Your task to perform on an android device: Open calendar and show me the fourth week of next month Image 0: 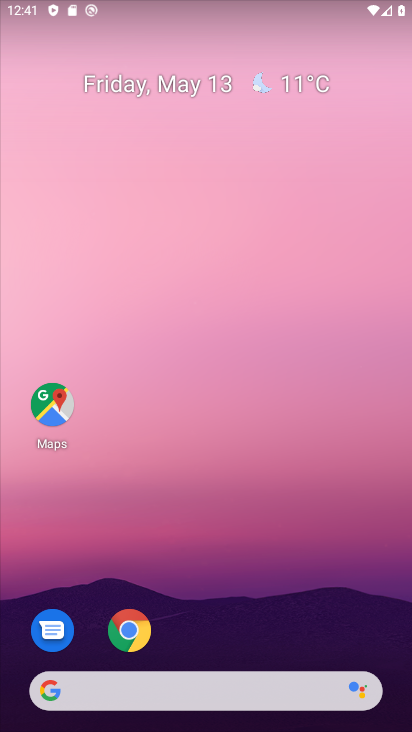
Step 0: drag from (289, 617) to (287, 363)
Your task to perform on an android device: Open calendar and show me the fourth week of next month Image 1: 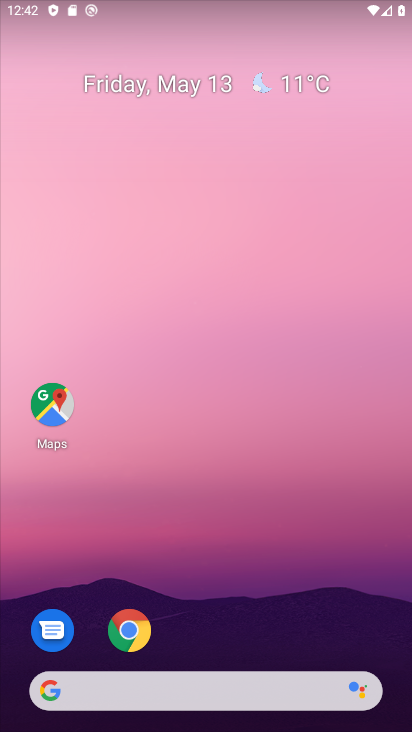
Step 1: drag from (265, 589) to (297, 231)
Your task to perform on an android device: Open calendar and show me the fourth week of next month Image 2: 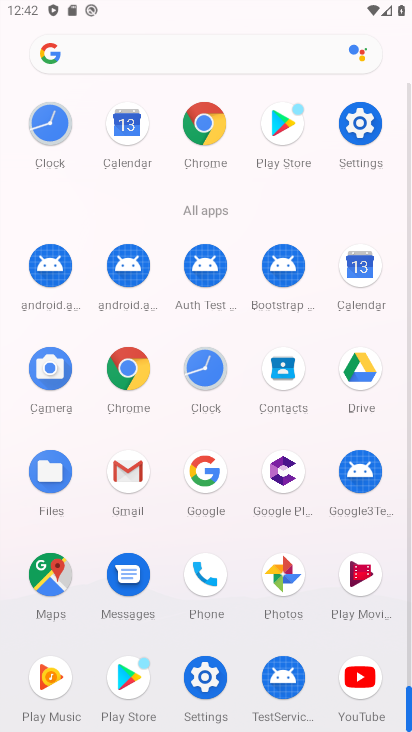
Step 2: click (366, 287)
Your task to perform on an android device: Open calendar and show me the fourth week of next month Image 3: 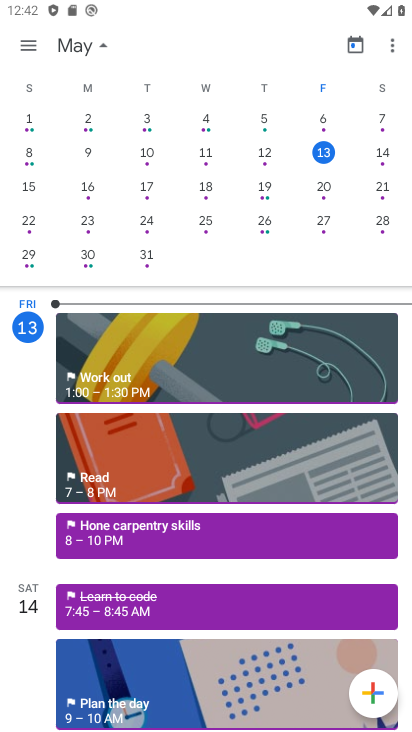
Step 3: drag from (287, 170) to (70, 213)
Your task to perform on an android device: Open calendar and show me the fourth week of next month Image 4: 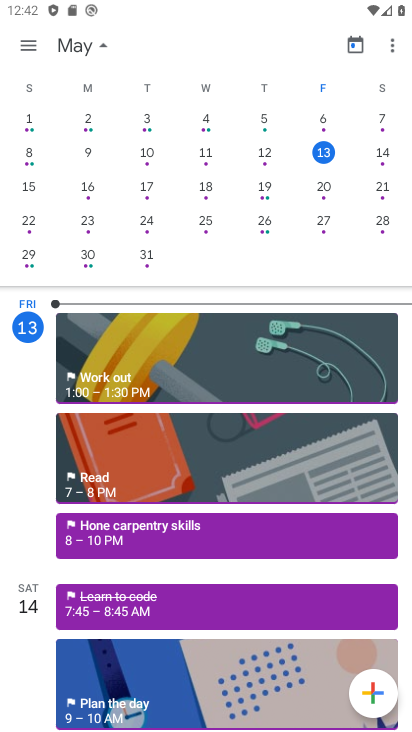
Step 4: drag from (312, 200) to (0, 232)
Your task to perform on an android device: Open calendar and show me the fourth week of next month Image 5: 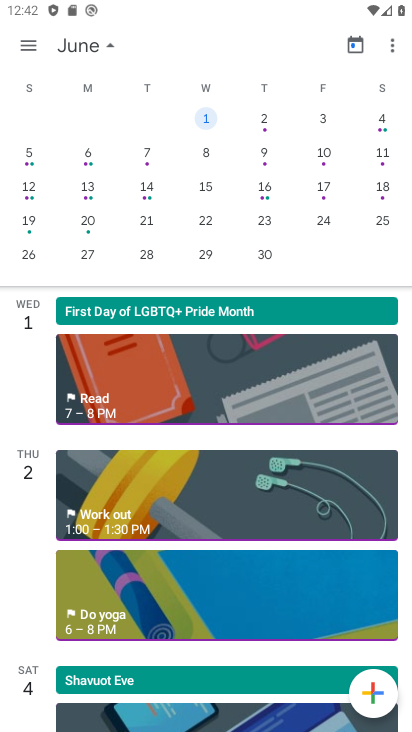
Step 5: click (16, 222)
Your task to perform on an android device: Open calendar and show me the fourth week of next month Image 6: 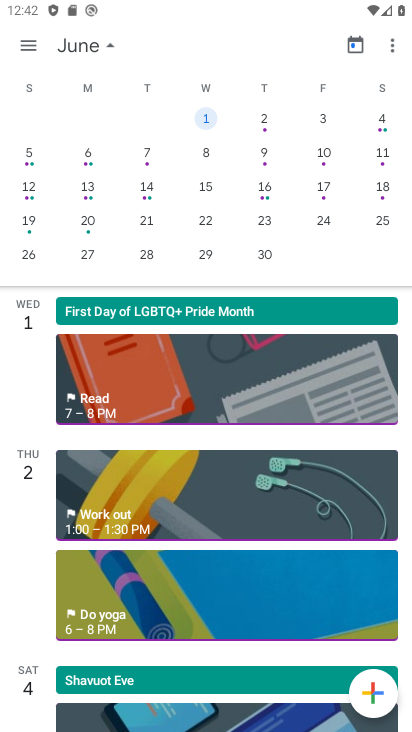
Step 6: click (34, 225)
Your task to perform on an android device: Open calendar and show me the fourth week of next month Image 7: 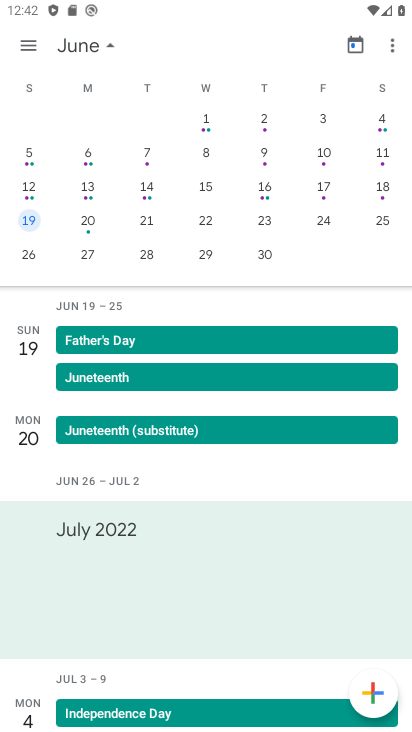
Step 7: click (111, 50)
Your task to perform on an android device: Open calendar and show me the fourth week of next month Image 8: 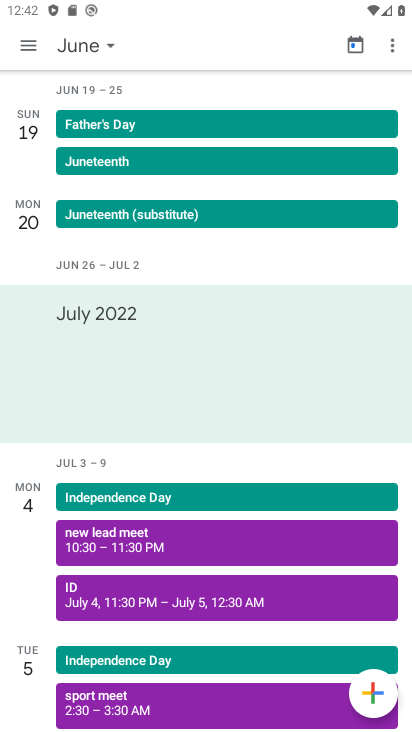
Step 8: click (21, 44)
Your task to perform on an android device: Open calendar and show me the fourth week of next month Image 9: 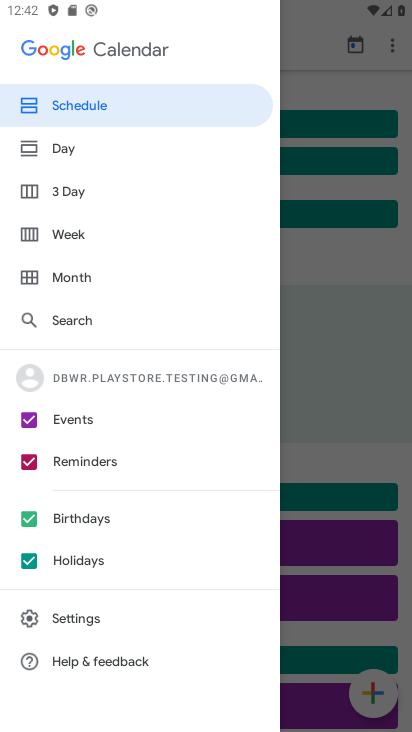
Step 9: click (81, 229)
Your task to perform on an android device: Open calendar and show me the fourth week of next month Image 10: 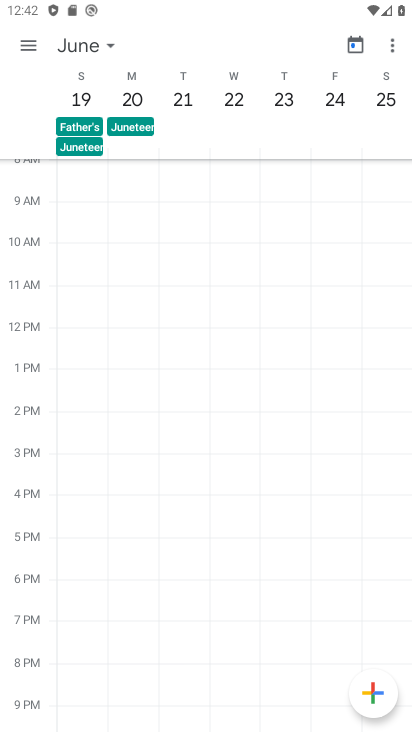
Step 10: task complete